Your task to perform on an android device: change the clock display to digital Image 0: 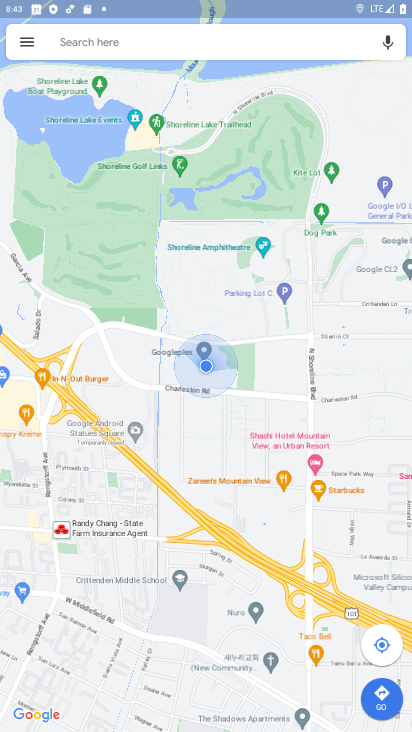
Step 0: press home button
Your task to perform on an android device: change the clock display to digital Image 1: 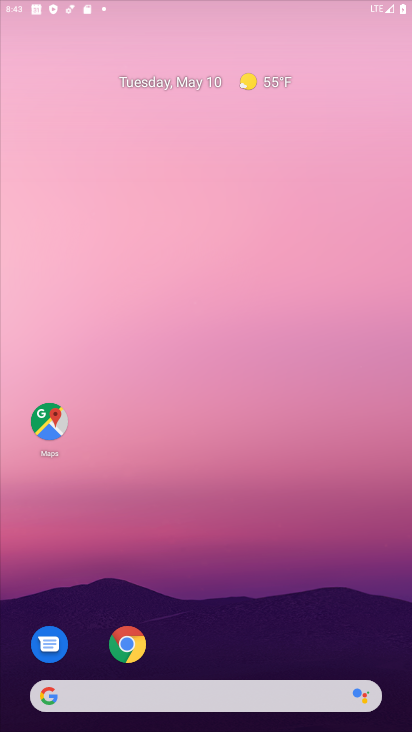
Step 1: drag from (260, 584) to (220, 220)
Your task to perform on an android device: change the clock display to digital Image 2: 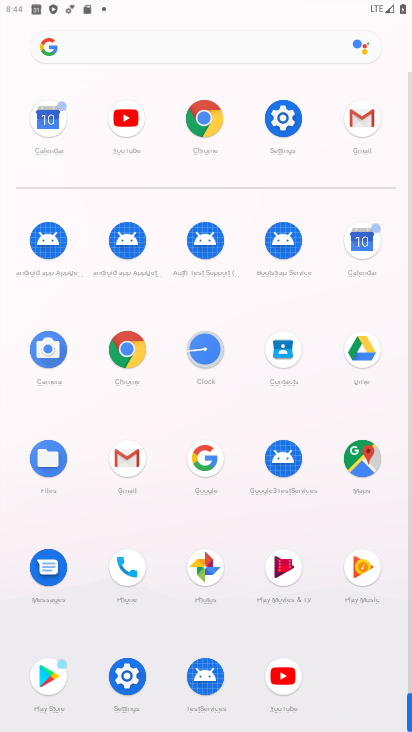
Step 2: click (209, 371)
Your task to perform on an android device: change the clock display to digital Image 3: 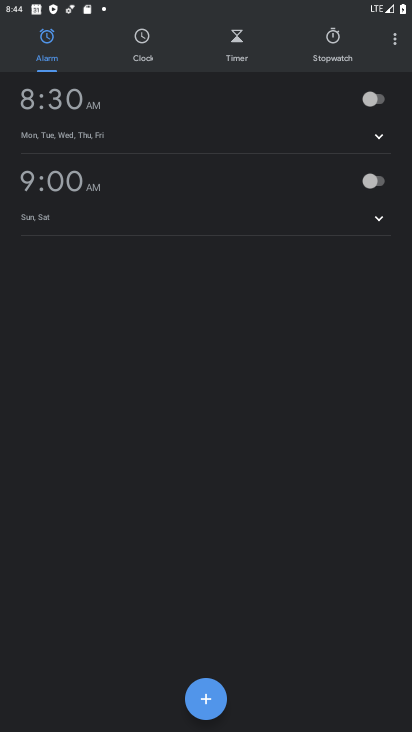
Step 3: click (392, 49)
Your task to perform on an android device: change the clock display to digital Image 4: 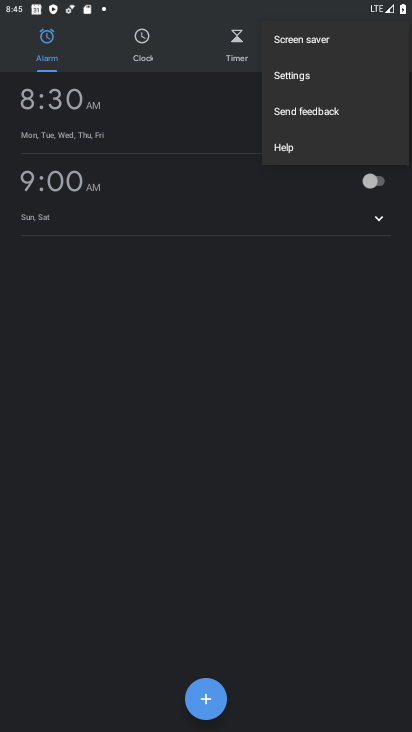
Step 4: click (298, 92)
Your task to perform on an android device: change the clock display to digital Image 5: 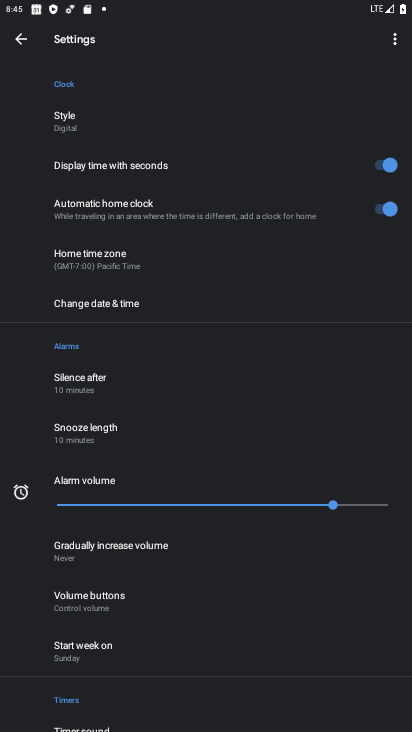
Step 5: click (86, 128)
Your task to perform on an android device: change the clock display to digital Image 6: 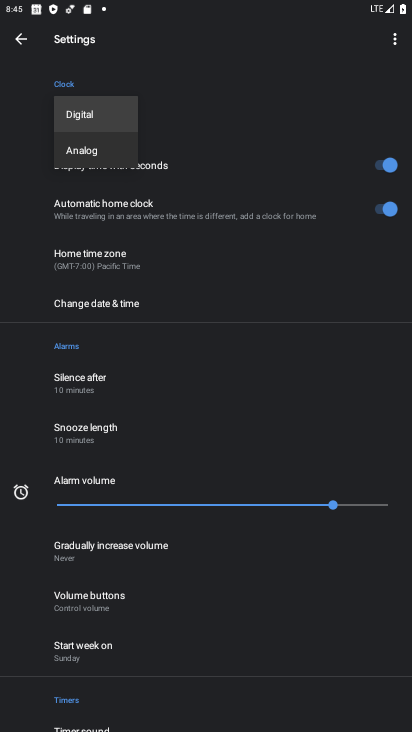
Step 6: task complete